Your task to perform on an android device: Open the phone app and click the voicemail tab. Image 0: 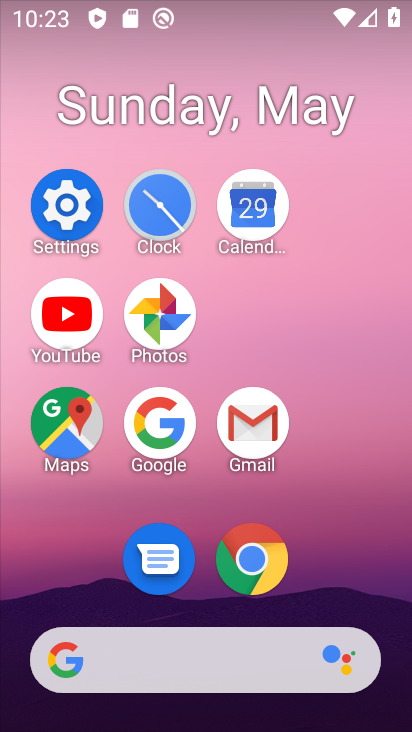
Step 0: drag from (361, 610) to (345, 228)
Your task to perform on an android device: Open the phone app and click the voicemail tab. Image 1: 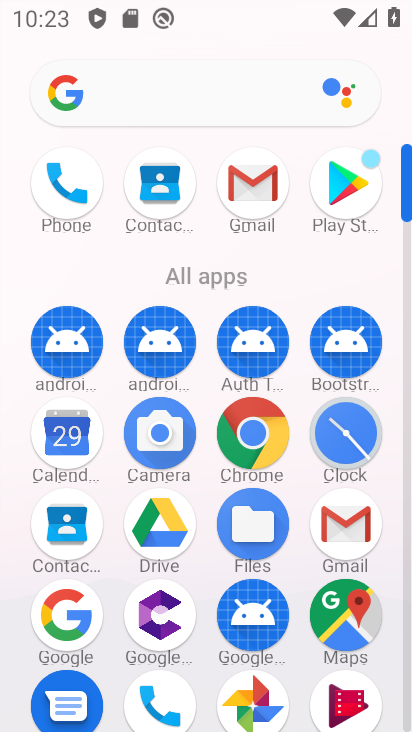
Step 1: click (67, 189)
Your task to perform on an android device: Open the phone app and click the voicemail tab. Image 2: 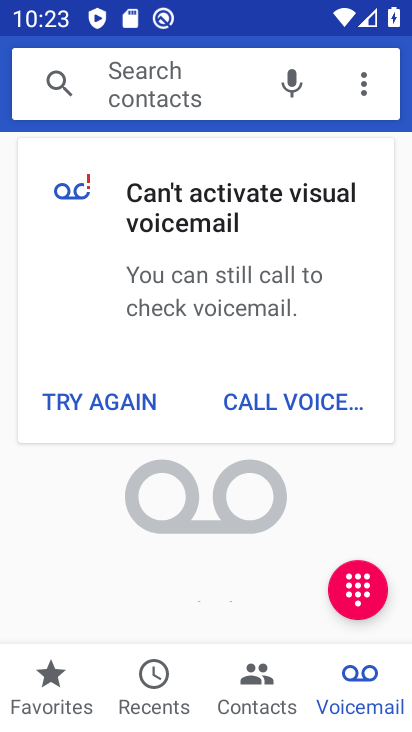
Step 2: click (364, 699)
Your task to perform on an android device: Open the phone app and click the voicemail tab. Image 3: 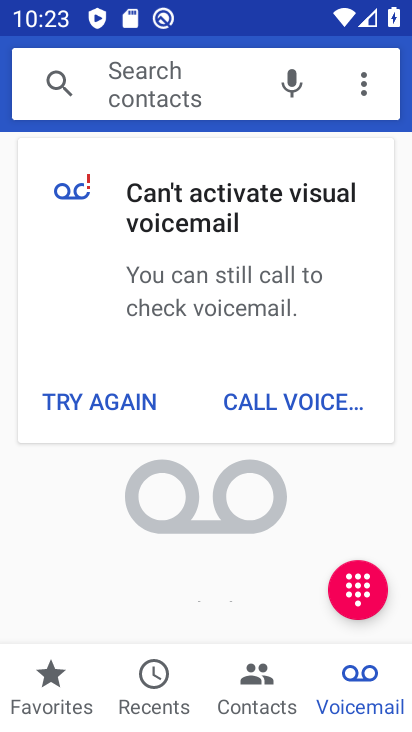
Step 3: task complete